Your task to perform on an android device: see sites visited before in the chrome app Image 0: 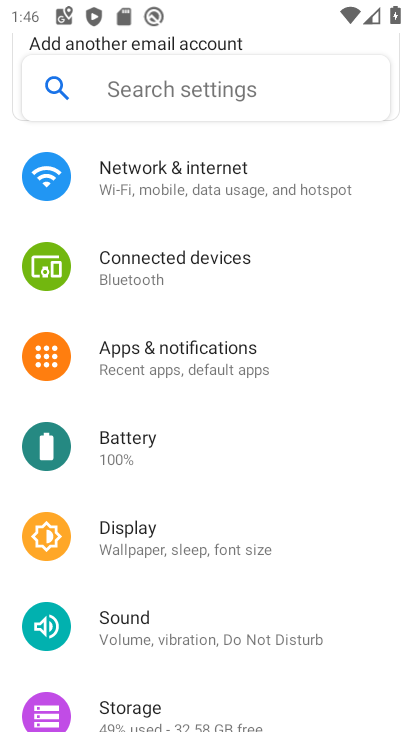
Step 0: press back button
Your task to perform on an android device: see sites visited before in the chrome app Image 1: 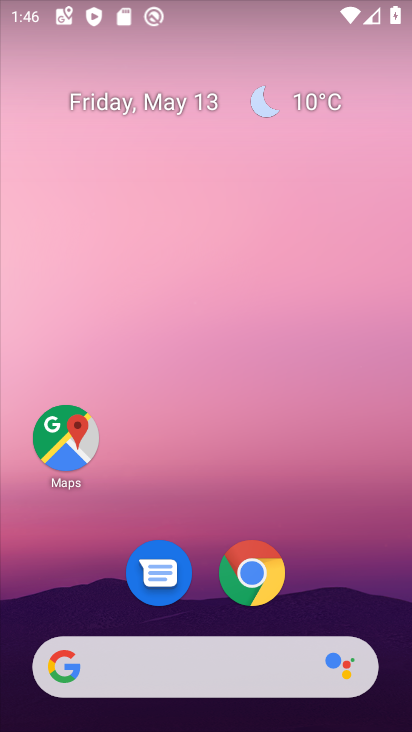
Step 1: drag from (330, 557) to (14, 59)
Your task to perform on an android device: see sites visited before in the chrome app Image 2: 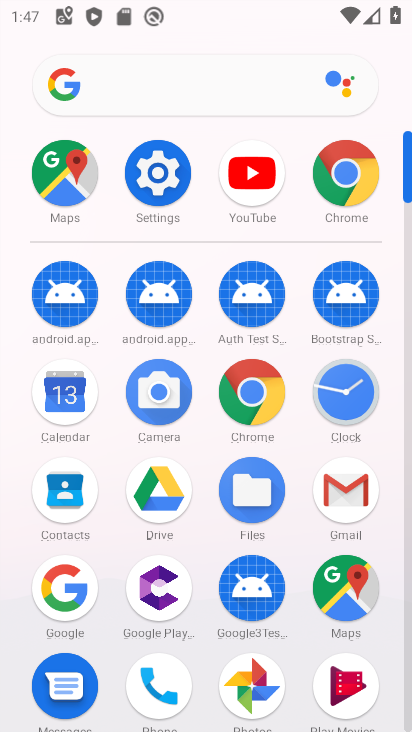
Step 2: click (248, 387)
Your task to perform on an android device: see sites visited before in the chrome app Image 3: 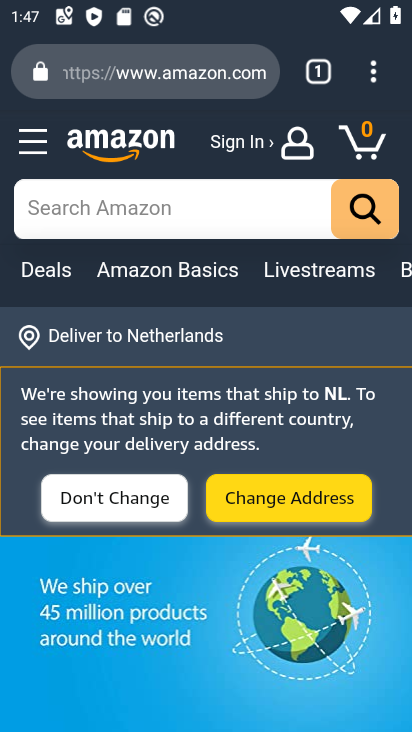
Step 3: click (204, 70)
Your task to perform on an android device: see sites visited before in the chrome app Image 4: 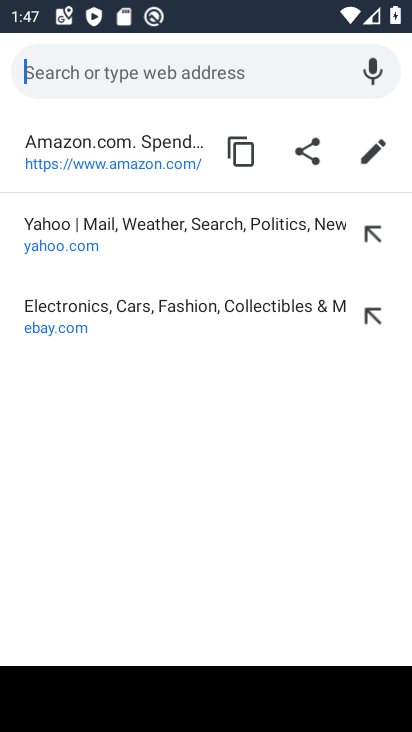
Step 4: press back button
Your task to perform on an android device: see sites visited before in the chrome app Image 5: 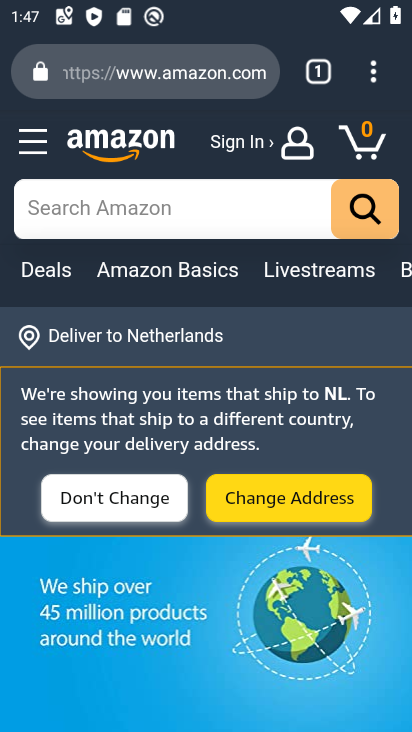
Step 5: drag from (371, 68) to (132, 569)
Your task to perform on an android device: see sites visited before in the chrome app Image 6: 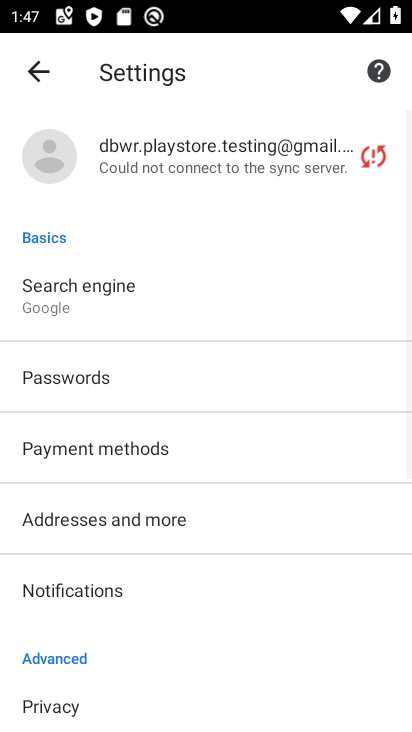
Step 6: drag from (267, 511) to (291, 177)
Your task to perform on an android device: see sites visited before in the chrome app Image 7: 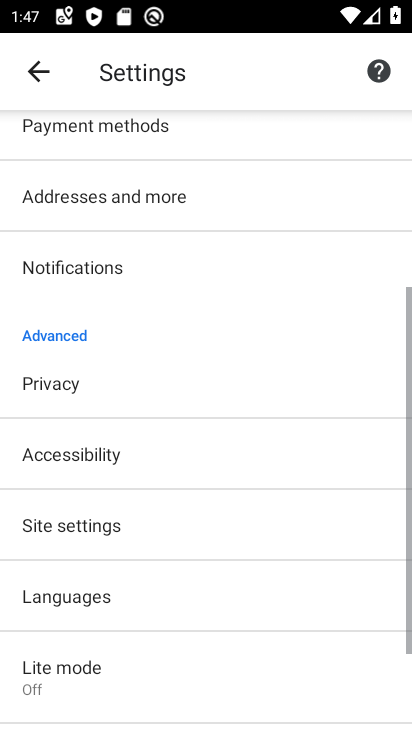
Step 7: drag from (268, 596) to (277, 194)
Your task to perform on an android device: see sites visited before in the chrome app Image 8: 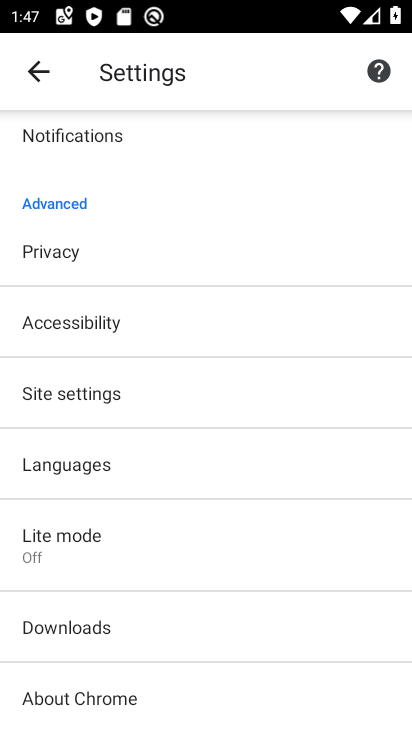
Step 8: drag from (225, 640) to (226, 278)
Your task to perform on an android device: see sites visited before in the chrome app Image 9: 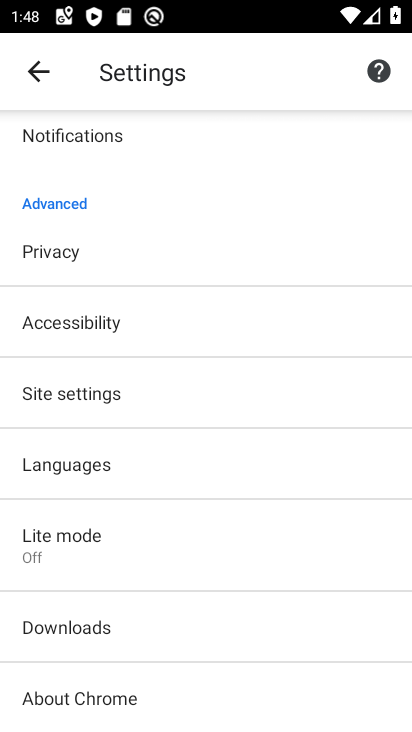
Step 9: drag from (158, 212) to (194, 703)
Your task to perform on an android device: see sites visited before in the chrome app Image 10: 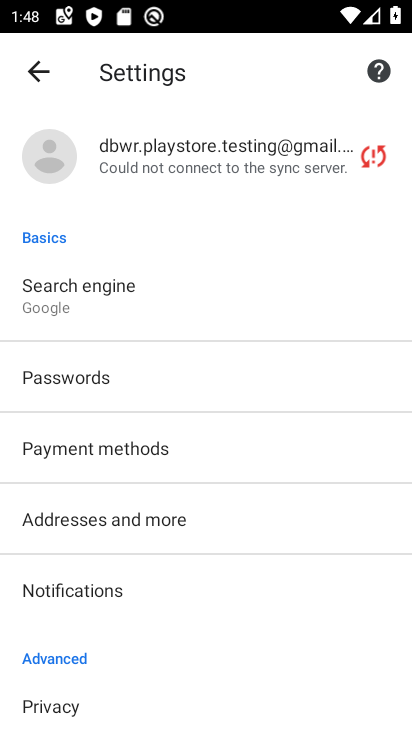
Step 10: drag from (217, 681) to (286, 228)
Your task to perform on an android device: see sites visited before in the chrome app Image 11: 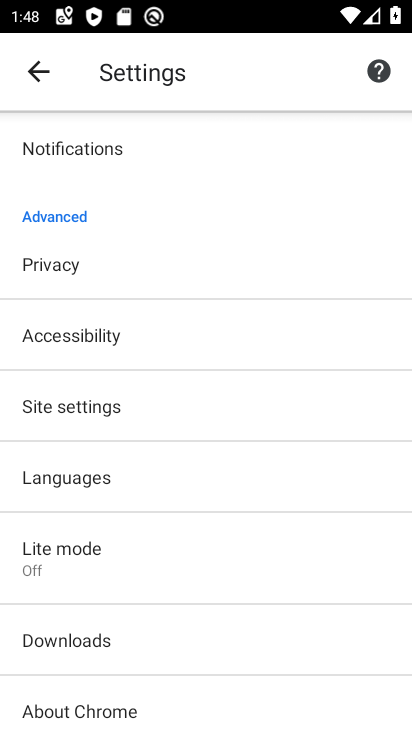
Step 11: click (28, 72)
Your task to perform on an android device: see sites visited before in the chrome app Image 12: 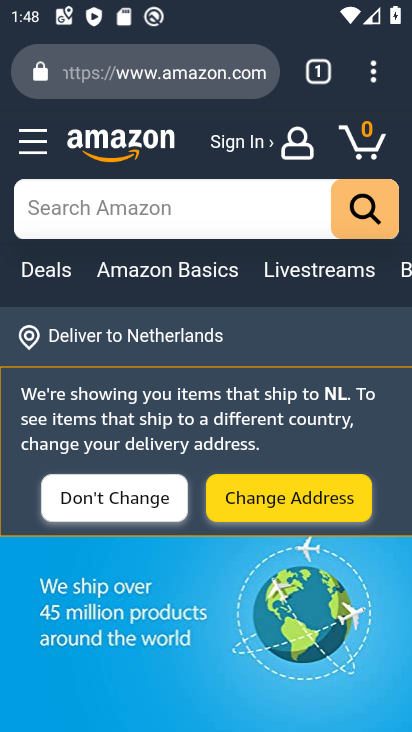
Step 12: task complete